Your task to perform on an android device: Open calendar and show me the first week of next month Image 0: 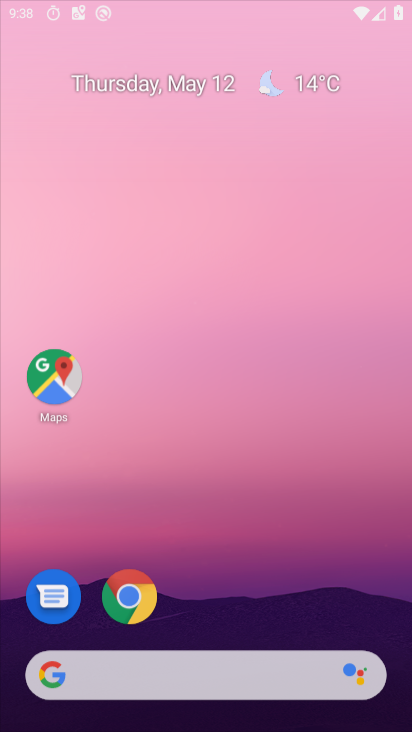
Step 0: press back button
Your task to perform on an android device: Open calendar and show me the first week of next month Image 1: 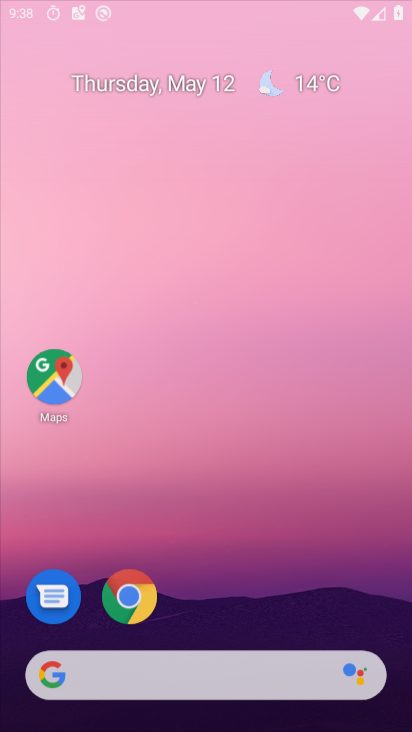
Step 1: click (146, 60)
Your task to perform on an android device: Open calendar and show me the first week of next month Image 2: 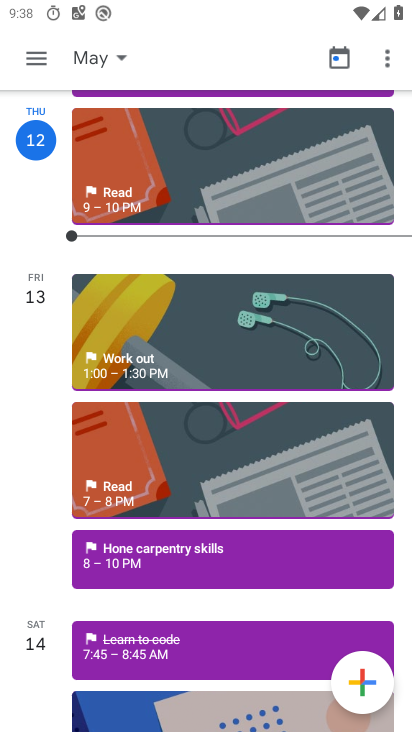
Step 2: click (380, 53)
Your task to perform on an android device: Open calendar and show me the first week of next month Image 3: 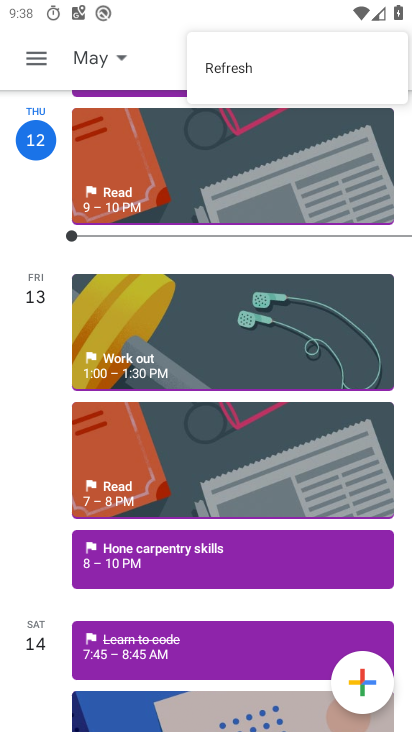
Step 3: drag from (295, 523) to (90, 11)
Your task to perform on an android device: Open calendar and show me the first week of next month Image 4: 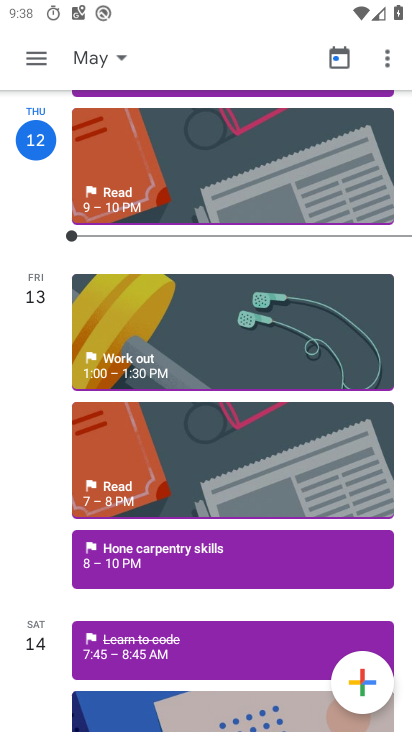
Step 4: drag from (225, 448) to (82, 78)
Your task to perform on an android device: Open calendar and show me the first week of next month Image 5: 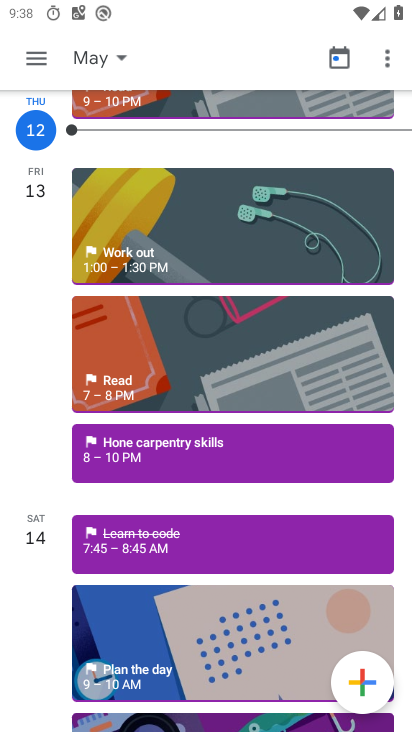
Step 5: drag from (215, 500) to (148, 111)
Your task to perform on an android device: Open calendar and show me the first week of next month Image 6: 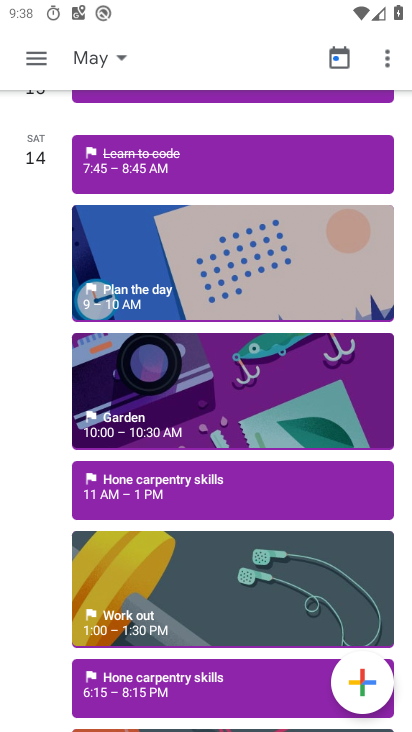
Step 6: drag from (270, 367) to (206, 62)
Your task to perform on an android device: Open calendar and show me the first week of next month Image 7: 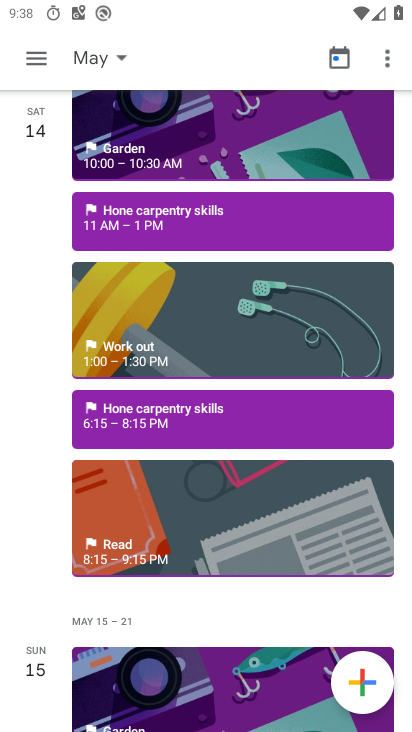
Step 7: drag from (230, 421) to (66, 41)
Your task to perform on an android device: Open calendar and show me the first week of next month Image 8: 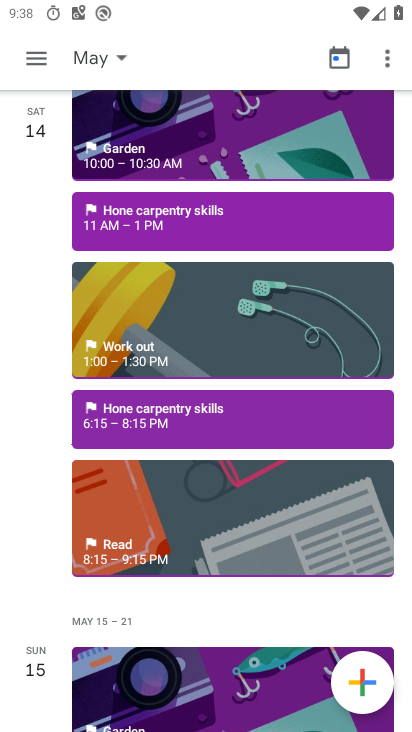
Step 8: drag from (200, 381) to (110, 24)
Your task to perform on an android device: Open calendar and show me the first week of next month Image 9: 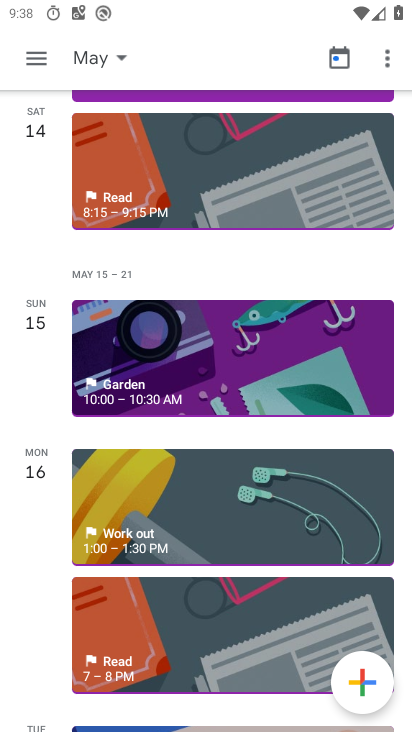
Step 9: drag from (254, 433) to (111, 16)
Your task to perform on an android device: Open calendar and show me the first week of next month Image 10: 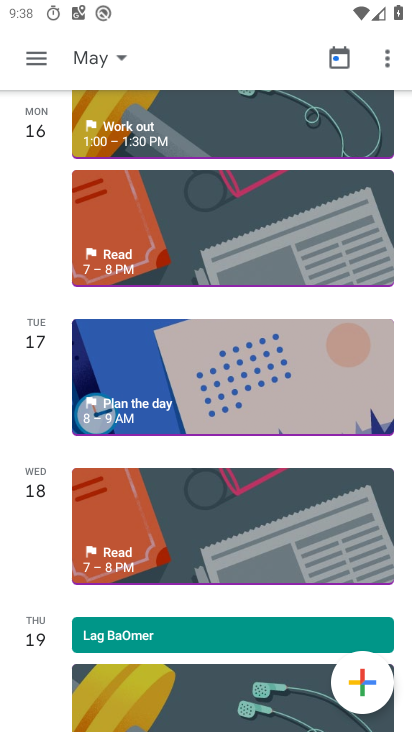
Step 10: drag from (192, 417) to (71, 16)
Your task to perform on an android device: Open calendar and show me the first week of next month Image 11: 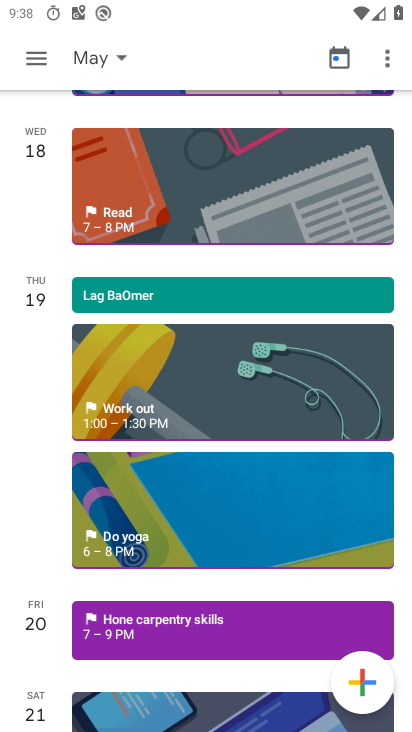
Step 11: drag from (222, 460) to (93, 89)
Your task to perform on an android device: Open calendar and show me the first week of next month Image 12: 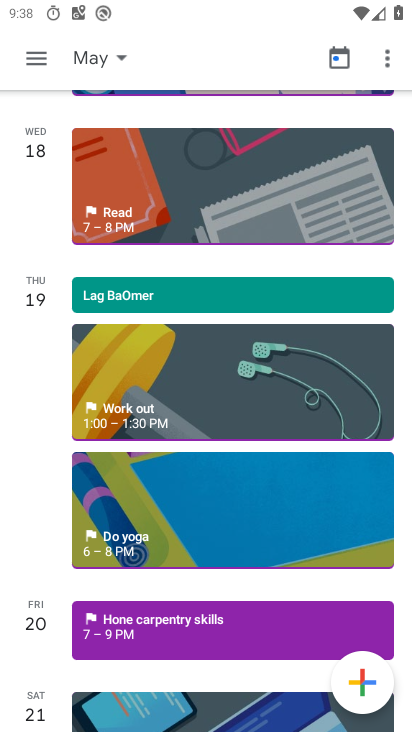
Step 12: drag from (153, 434) to (72, 147)
Your task to perform on an android device: Open calendar and show me the first week of next month Image 13: 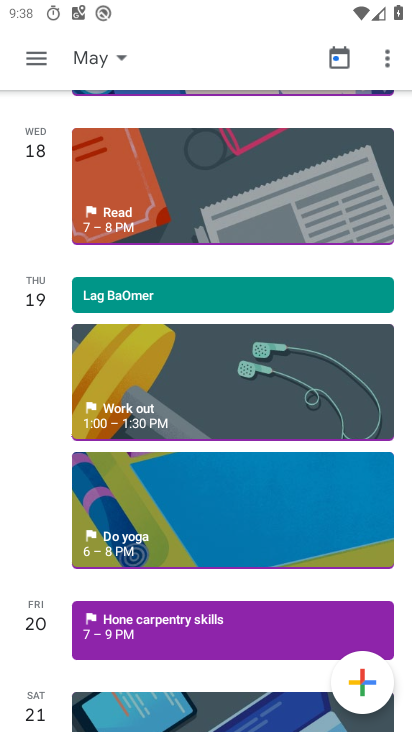
Step 13: drag from (213, 342) to (150, 125)
Your task to perform on an android device: Open calendar and show me the first week of next month Image 14: 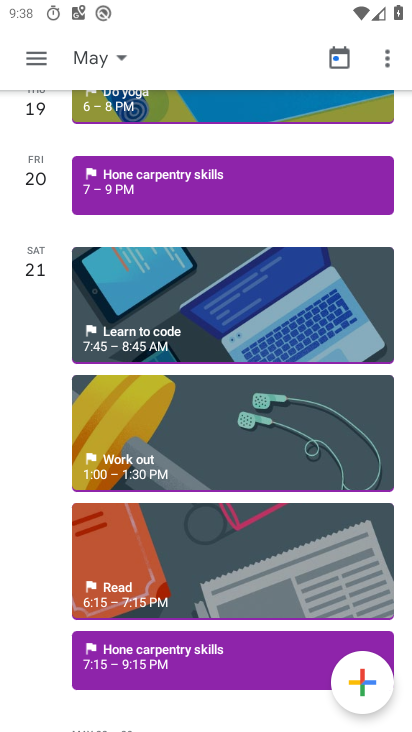
Step 14: drag from (191, 525) to (173, 220)
Your task to perform on an android device: Open calendar and show me the first week of next month Image 15: 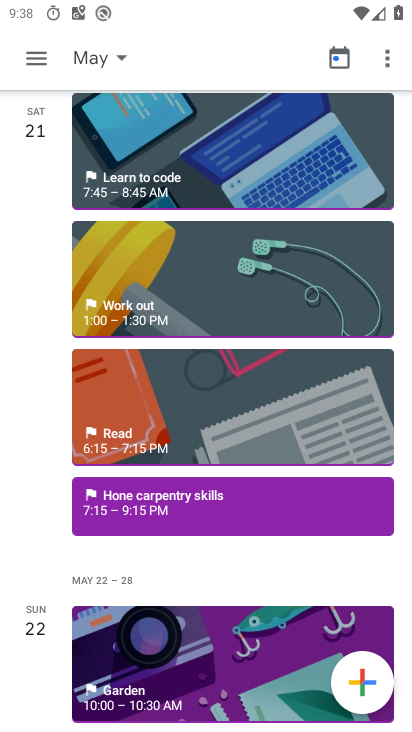
Step 15: drag from (159, 428) to (158, 155)
Your task to perform on an android device: Open calendar and show me the first week of next month Image 16: 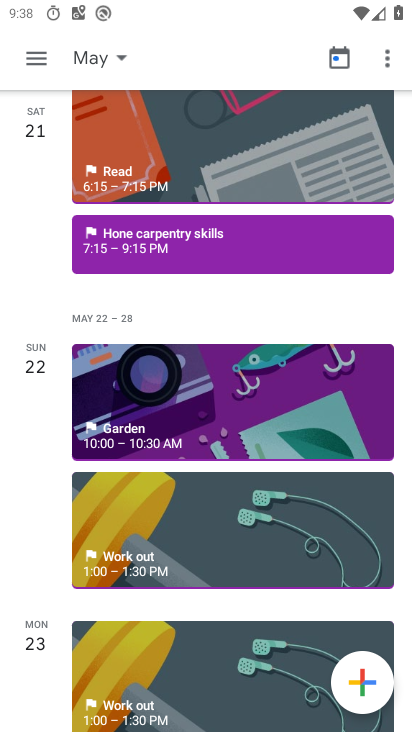
Step 16: drag from (244, 431) to (126, 143)
Your task to perform on an android device: Open calendar and show me the first week of next month Image 17: 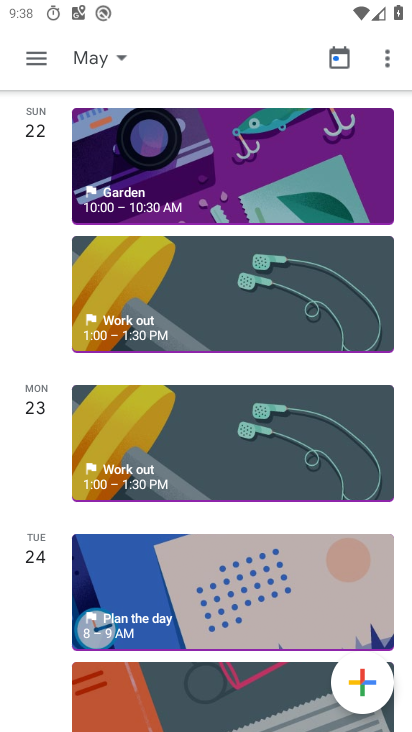
Step 17: drag from (206, 418) to (127, 212)
Your task to perform on an android device: Open calendar and show me the first week of next month Image 18: 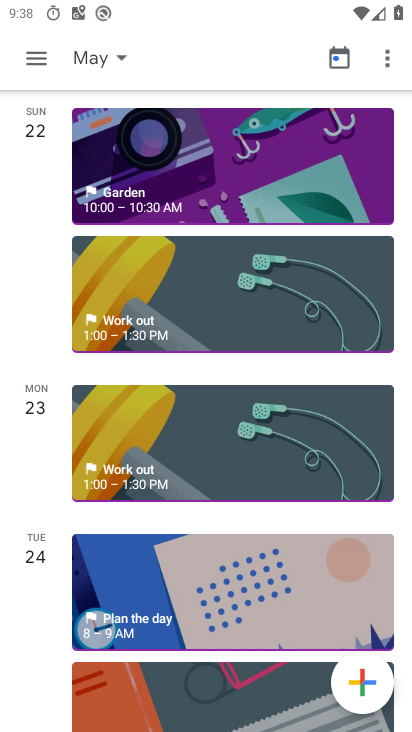
Step 18: drag from (165, 449) to (78, 81)
Your task to perform on an android device: Open calendar and show me the first week of next month Image 19: 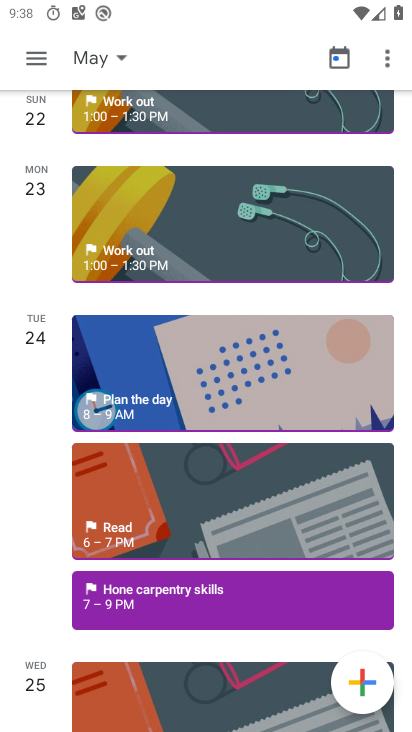
Step 19: drag from (226, 430) to (161, 168)
Your task to perform on an android device: Open calendar and show me the first week of next month Image 20: 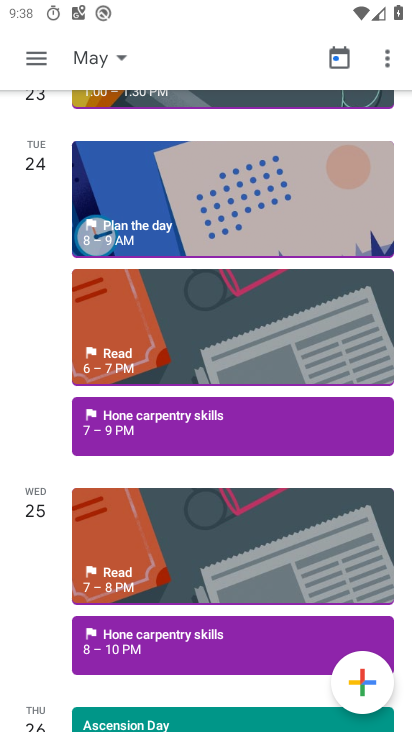
Step 20: drag from (206, 435) to (175, 151)
Your task to perform on an android device: Open calendar and show me the first week of next month Image 21: 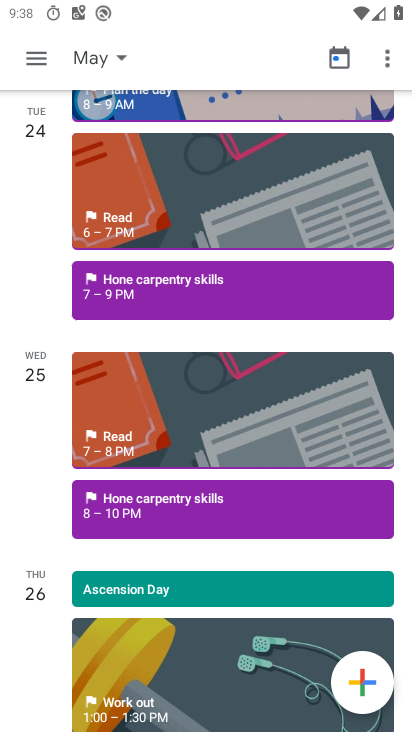
Step 21: drag from (188, 420) to (137, 77)
Your task to perform on an android device: Open calendar and show me the first week of next month Image 22: 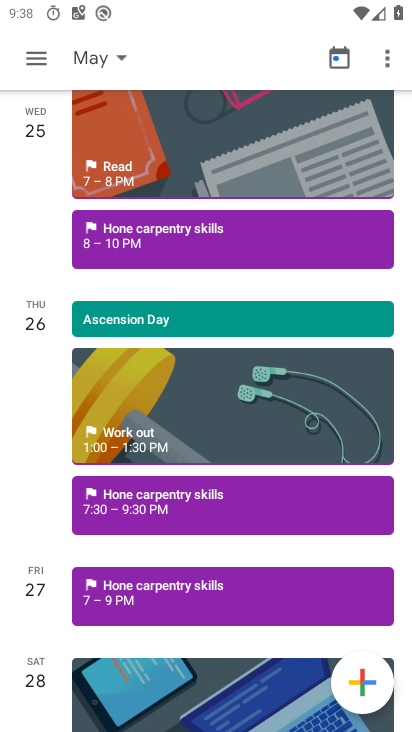
Step 22: drag from (210, 473) to (159, 193)
Your task to perform on an android device: Open calendar and show me the first week of next month Image 23: 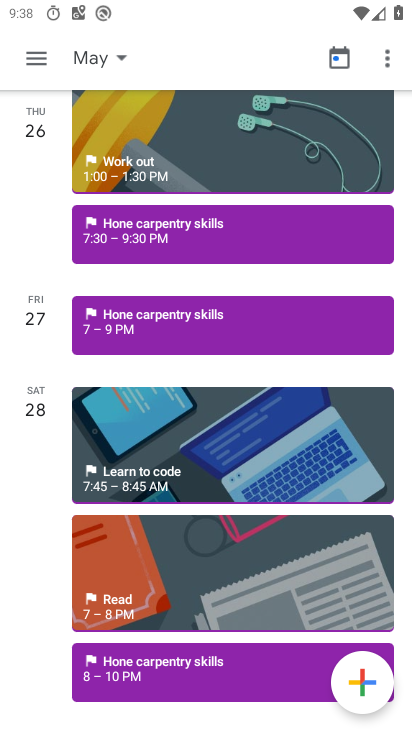
Step 23: drag from (158, 413) to (111, 21)
Your task to perform on an android device: Open calendar and show me the first week of next month Image 24: 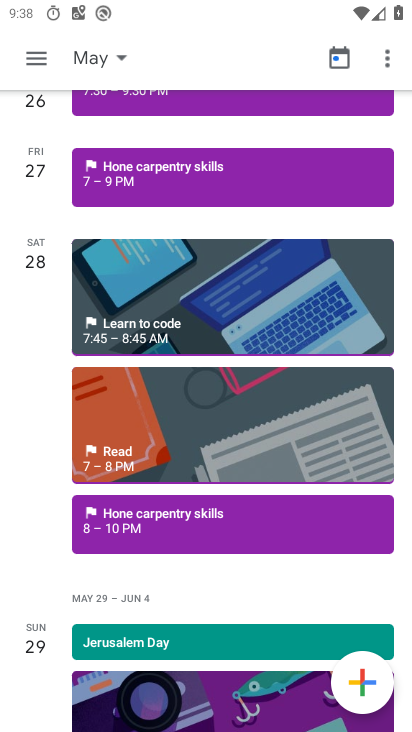
Step 24: drag from (185, 348) to (142, 24)
Your task to perform on an android device: Open calendar and show me the first week of next month Image 25: 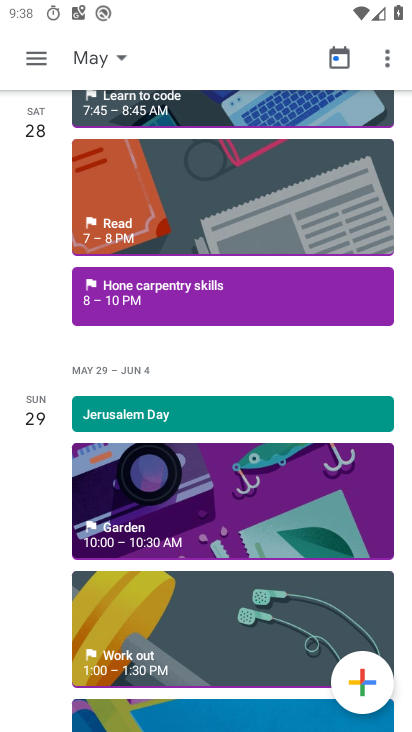
Step 25: drag from (174, 357) to (174, 78)
Your task to perform on an android device: Open calendar and show me the first week of next month Image 26: 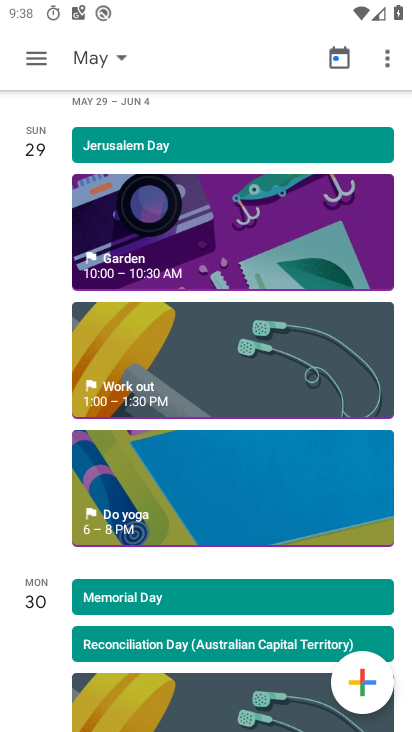
Step 26: drag from (165, 306) to (129, 64)
Your task to perform on an android device: Open calendar and show me the first week of next month Image 27: 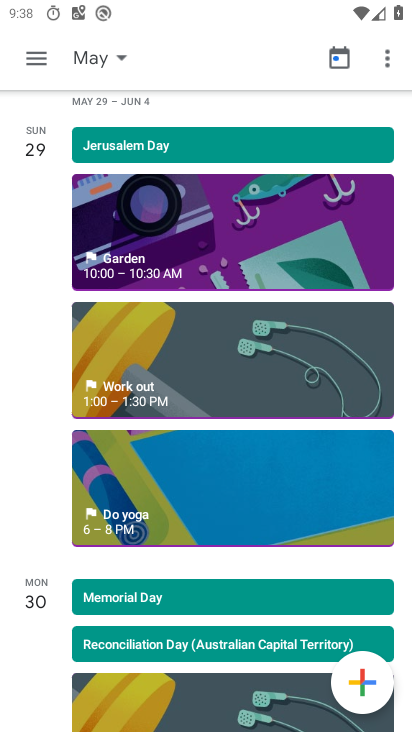
Step 27: drag from (144, 414) to (127, 78)
Your task to perform on an android device: Open calendar and show me the first week of next month Image 28: 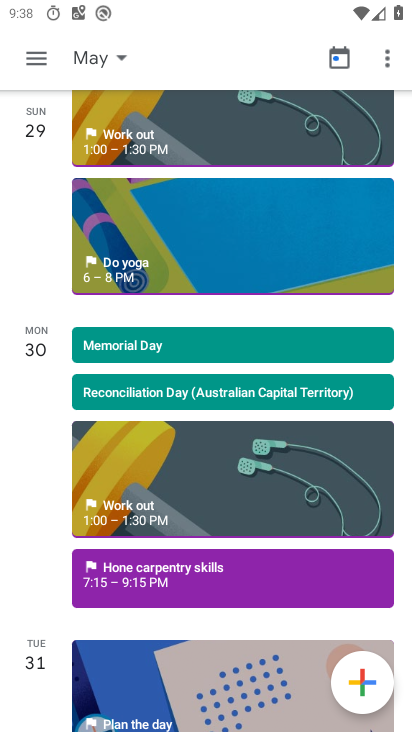
Step 28: drag from (168, 481) to (149, 31)
Your task to perform on an android device: Open calendar and show me the first week of next month Image 29: 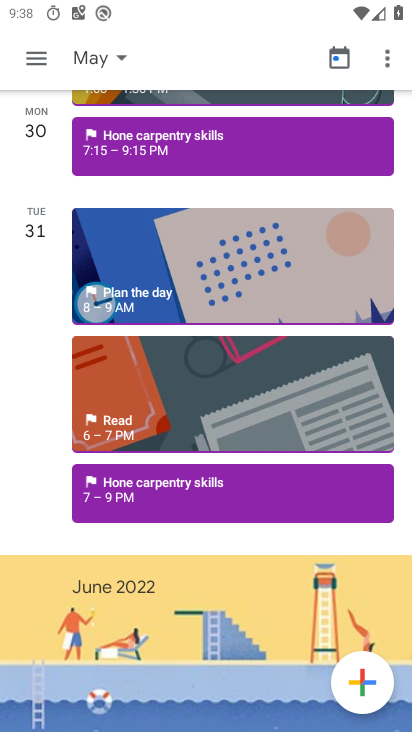
Step 29: drag from (147, 304) to (215, 498)
Your task to perform on an android device: Open calendar and show me the first week of next month Image 30: 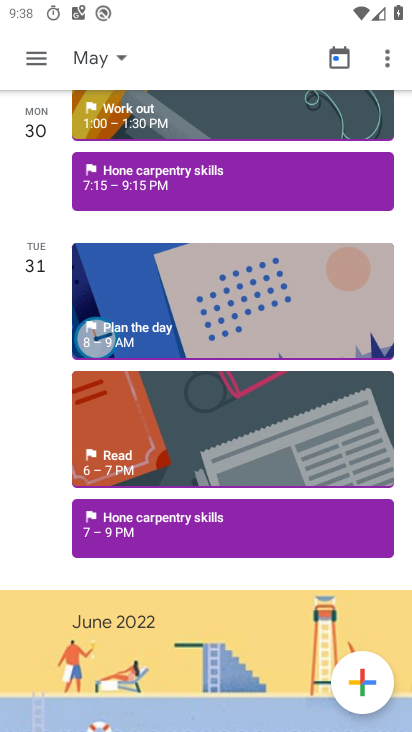
Step 30: click (129, 541)
Your task to perform on an android device: Open calendar and show me the first week of next month Image 31: 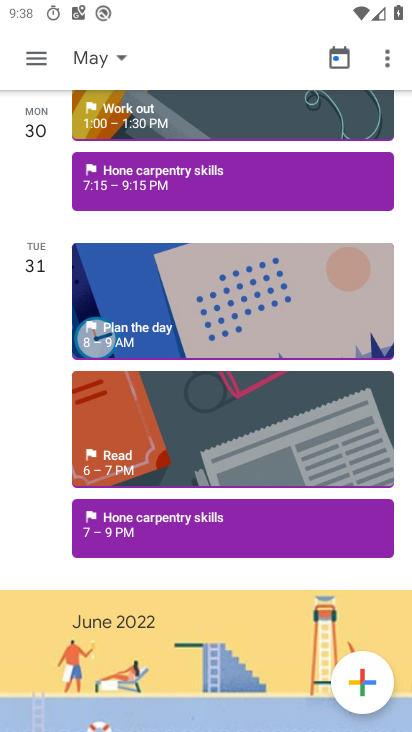
Step 31: drag from (74, 333) to (178, 679)
Your task to perform on an android device: Open calendar and show me the first week of next month Image 32: 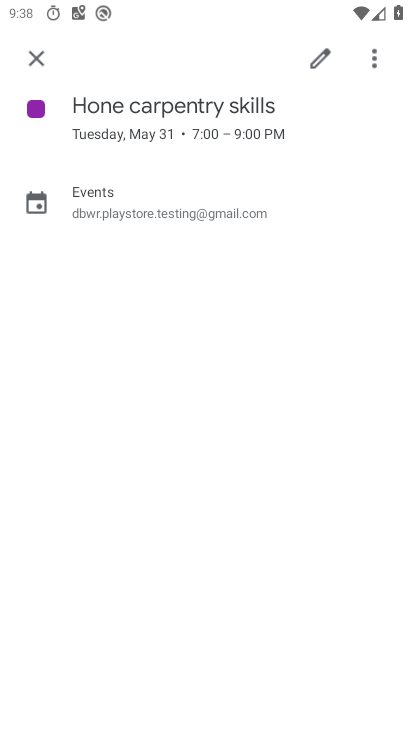
Step 32: click (31, 46)
Your task to perform on an android device: Open calendar and show me the first week of next month Image 33: 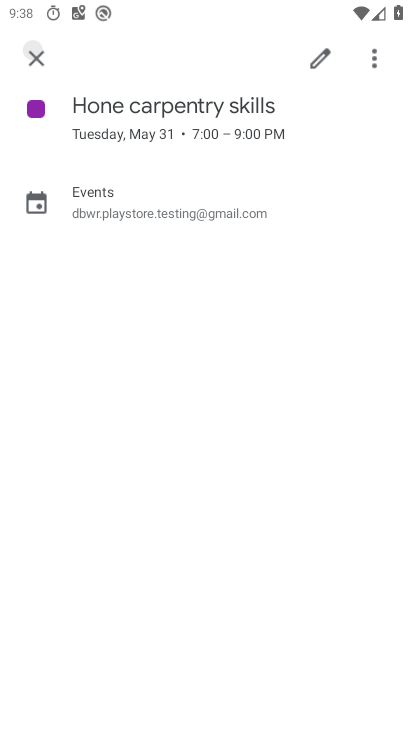
Step 33: click (31, 53)
Your task to perform on an android device: Open calendar and show me the first week of next month Image 34: 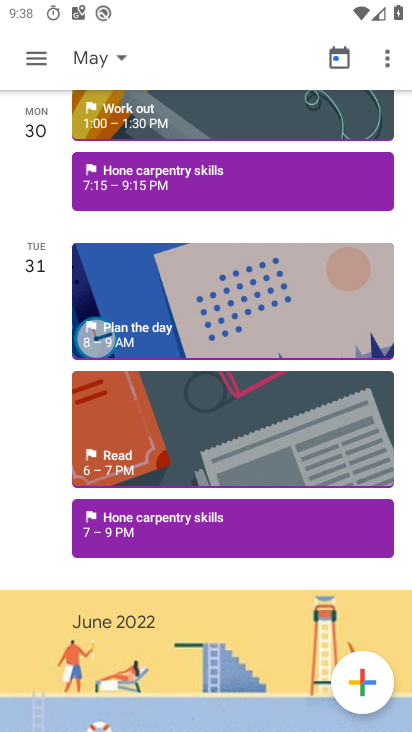
Step 34: click (213, 545)
Your task to perform on an android device: Open calendar and show me the first week of next month Image 35: 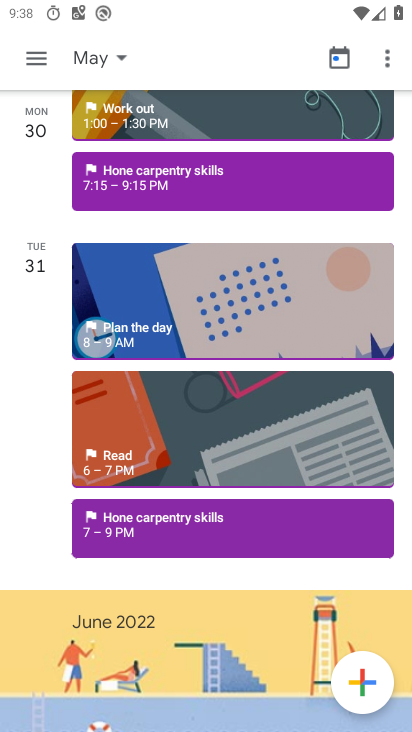
Step 35: drag from (152, 165) to (255, 499)
Your task to perform on an android device: Open calendar and show me the first week of next month Image 36: 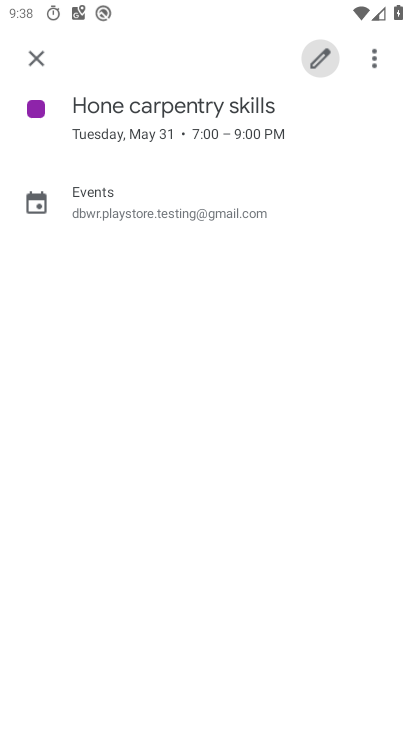
Step 36: drag from (179, 172) to (272, 520)
Your task to perform on an android device: Open calendar and show me the first week of next month Image 37: 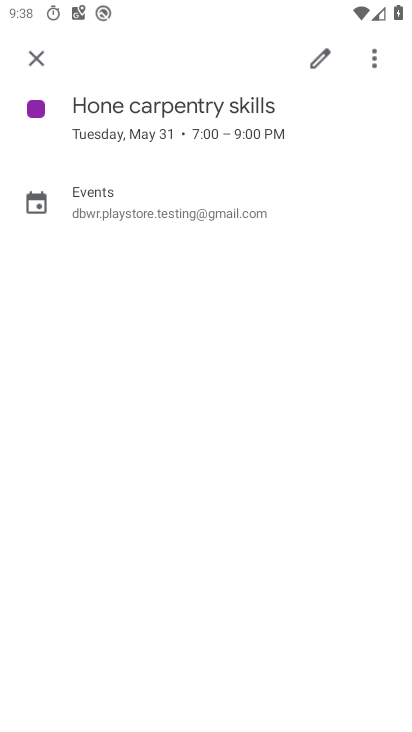
Step 37: click (30, 59)
Your task to perform on an android device: Open calendar and show me the first week of next month Image 38: 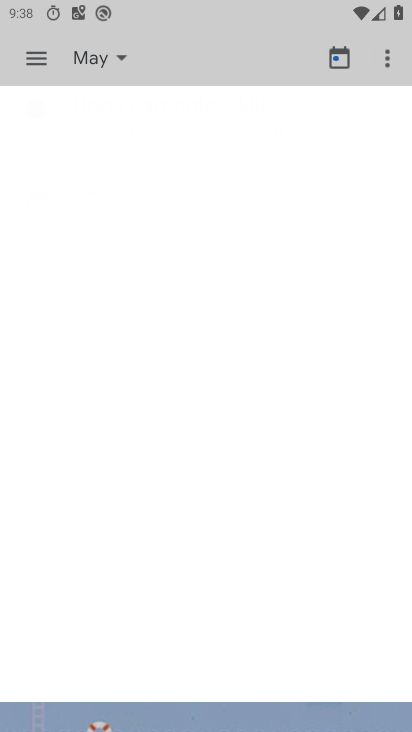
Step 38: click (37, 56)
Your task to perform on an android device: Open calendar and show me the first week of next month Image 39: 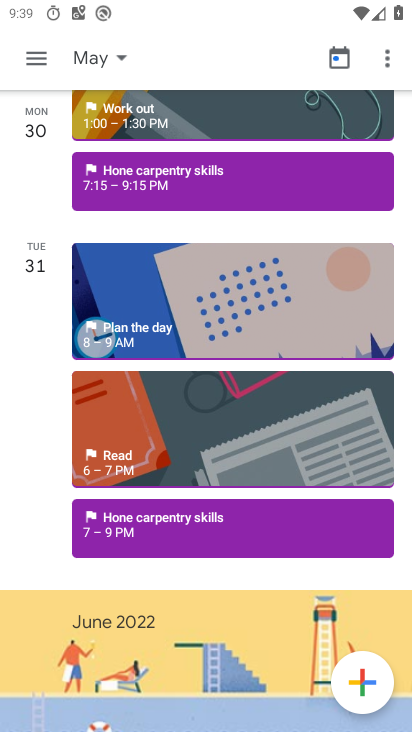
Step 39: click (232, 539)
Your task to perform on an android device: Open calendar and show me the first week of next month Image 40: 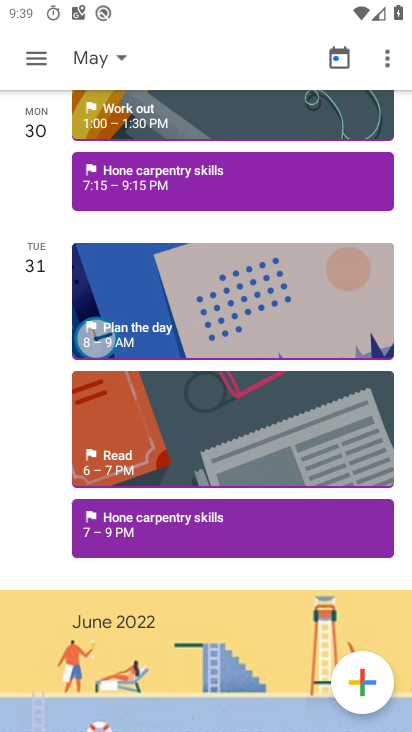
Step 40: drag from (163, 353) to (210, 468)
Your task to perform on an android device: Open calendar and show me the first week of next month Image 41: 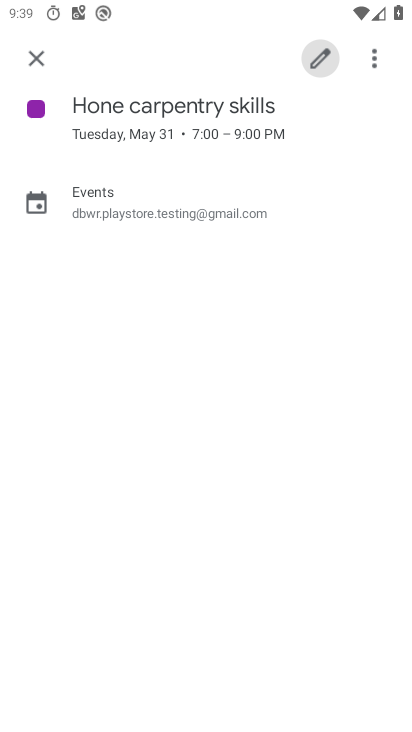
Step 41: drag from (163, 202) to (205, 456)
Your task to perform on an android device: Open calendar and show me the first week of next month Image 42: 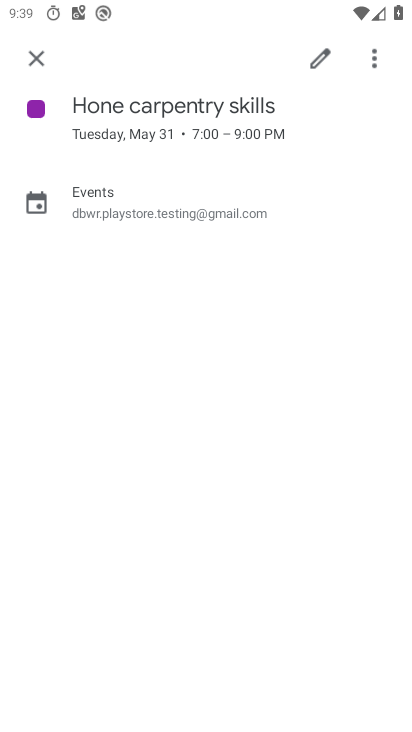
Step 42: click (36, 61)
Your task to perform on an android device: Open calendar and show me the first week of next month Image 43: 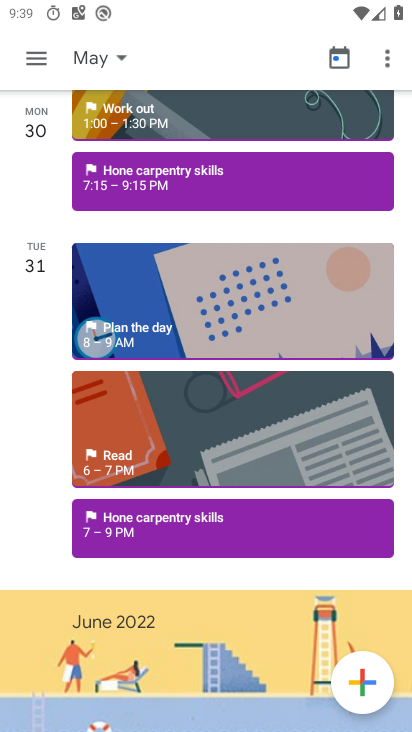
Step 43: drag from (211, 437) to (136, 143)
Your task to perform on an android device: Open calendar and show me the first week of next month Image 44: 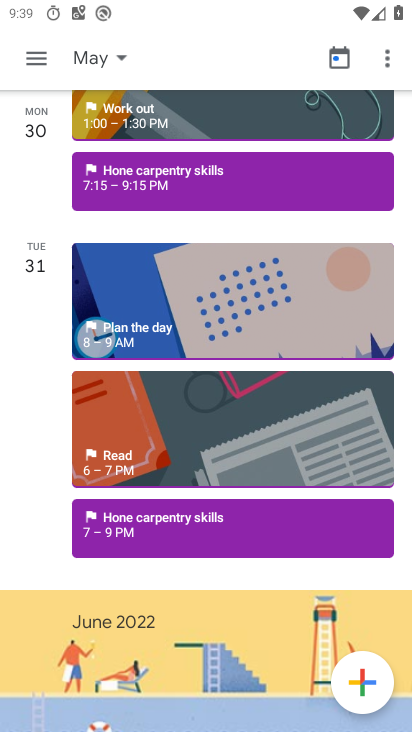
Step 44: click (203, 438)
Your task to perform on an android device: Open calendar and show me the first week of next month Image 45: 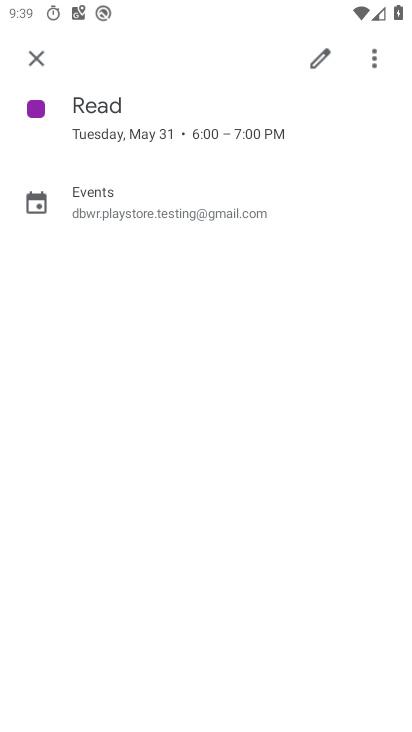
Step 45: drag from (187, 373) to (208, 490)
Your task to perform on an android device: Open calendar and show me the first week of next month Image 46: 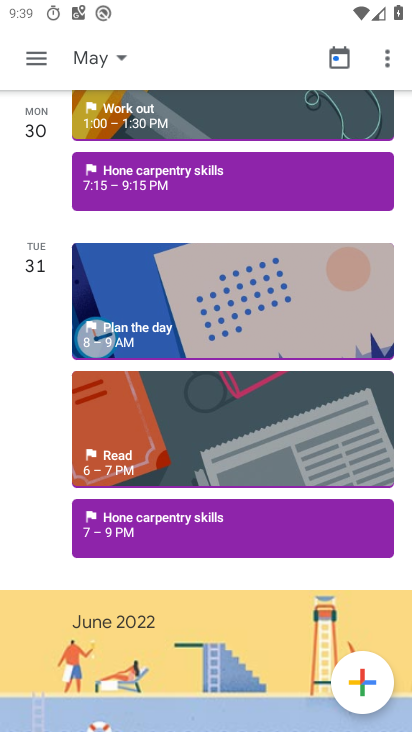
Step 46: drag from (172, 372) to (194, 454)
Your task to perform on an android device: Open calendar and show me the first week of next month Image 47: 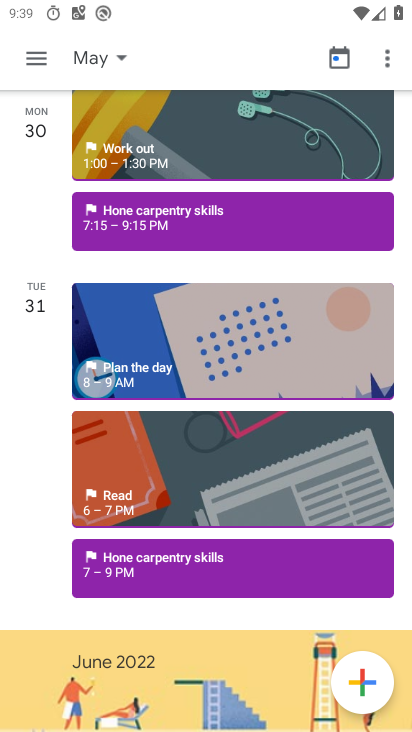
Step 47: click (197, 486)
Your task to perform on an android device: Open calendar and show me the first week of next month Image 48: 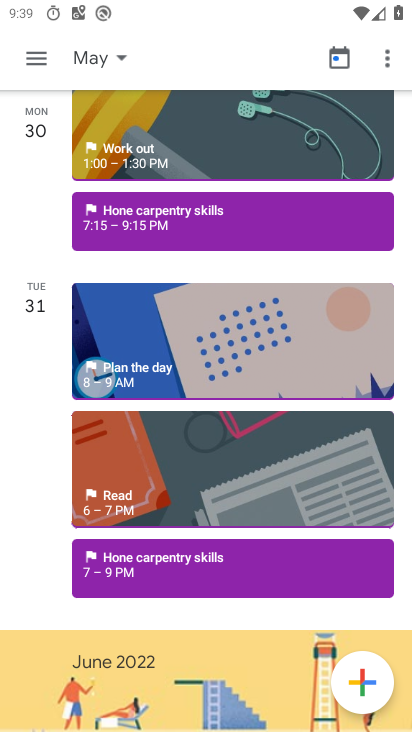
Step 48: click (41, 51)
Your task to perform on an android device: Open calendar and show me the first week of next month Image 49: 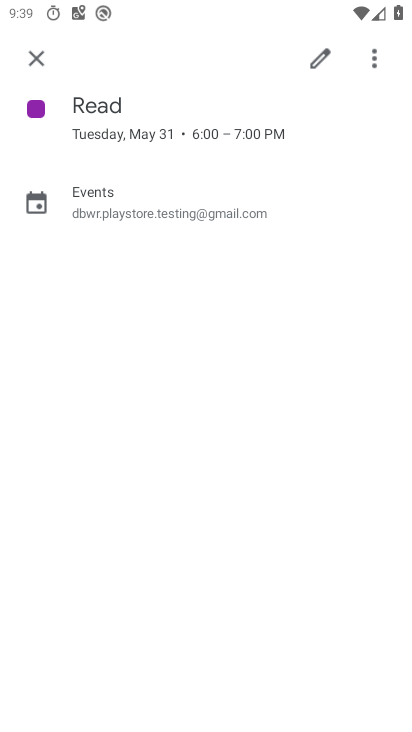
Step 49: click (33, 59)
Your task to perform on an android device: Open calendar and show me the first week of next month Image 50: 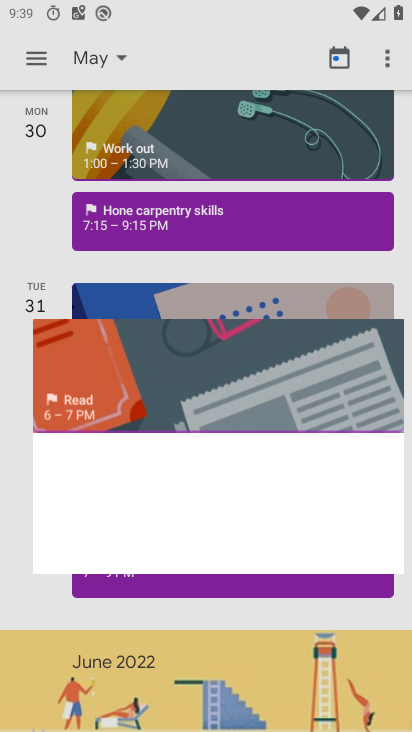
Step 50: click (24, 36)
Your task to perform on an android device: Open calendar and show me the first week of next month Image 51: 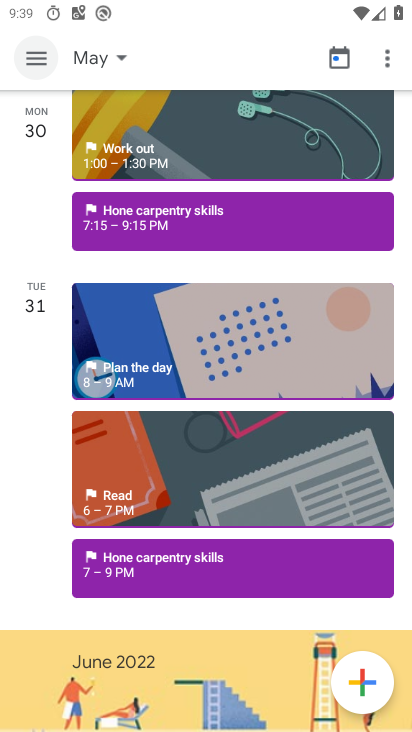
Step 51: click (25, 35)
Your task to perform on an android device: Open calendar and show me the first week of next month Image 52: 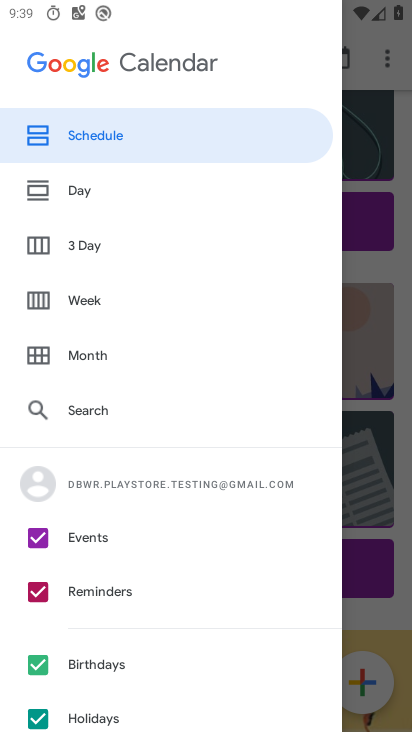
Step 52: click (349, 351)
Your task to perform on an android device: Open calendar and show me the first week of next month Image 53: 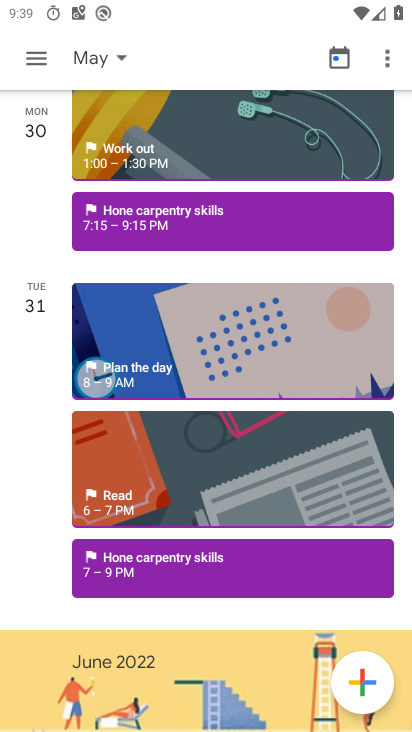
Step 53: click (349, 351)
Your task to perform on an android device: Open calendar and show me the first week of next month Image 54: 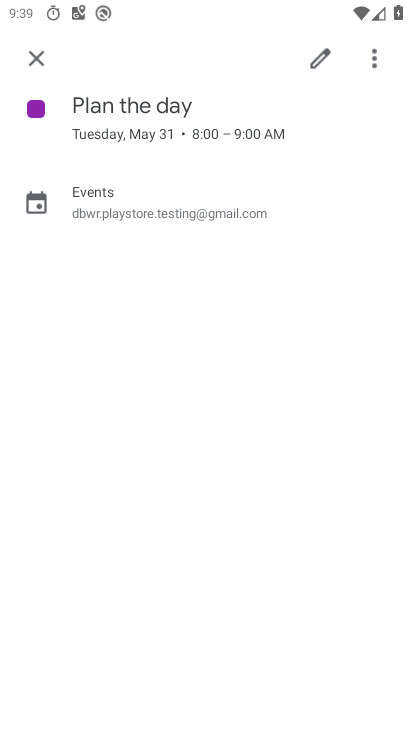
Step 54: click (359, 337)
Your task to perform on an android device: Open calendar and show me the first week of next month Image 55: 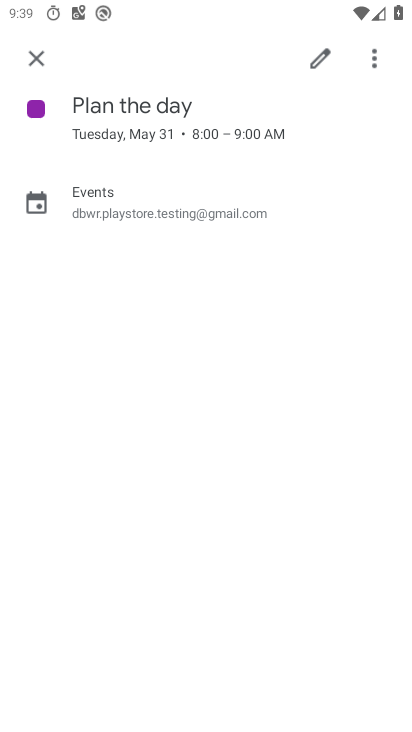
Step 55: click (359, 336)
Your task to perform on an android device: Open calendar and show me the first week of next month Image 56: 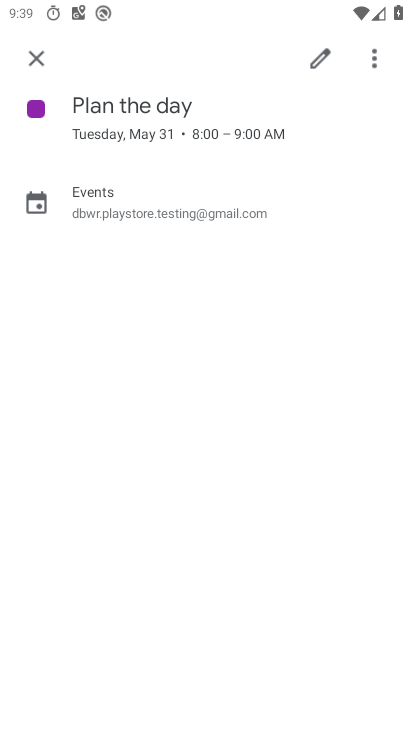
Step 56: click (28, 53)
Your task to perform on an android device: Open calendar and show me the first week of next month Image 57: 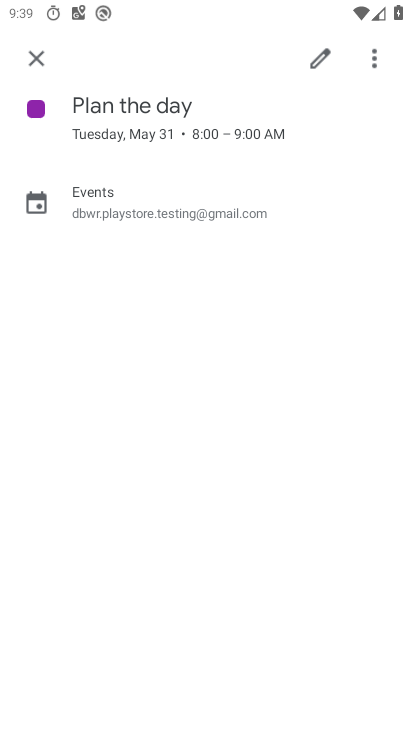
Step 57: click (41, 50)
Your task to perform on an android device: Open calendar and show me the first week of next month Image 58: 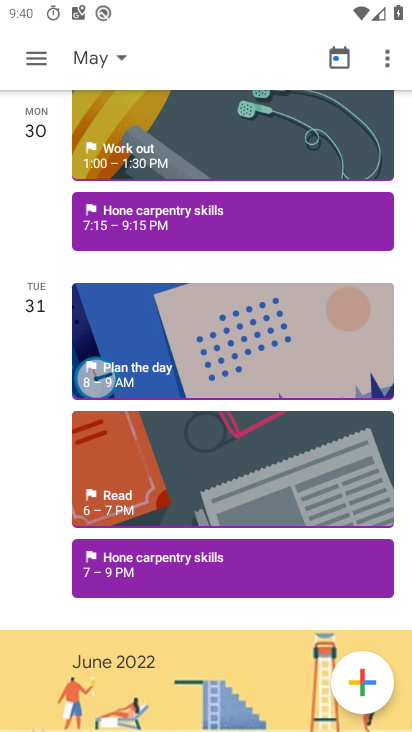
Step 58: click (37, 59)
Your task to perform on an android device: Open calendar and show me the first week of next month Image 59: 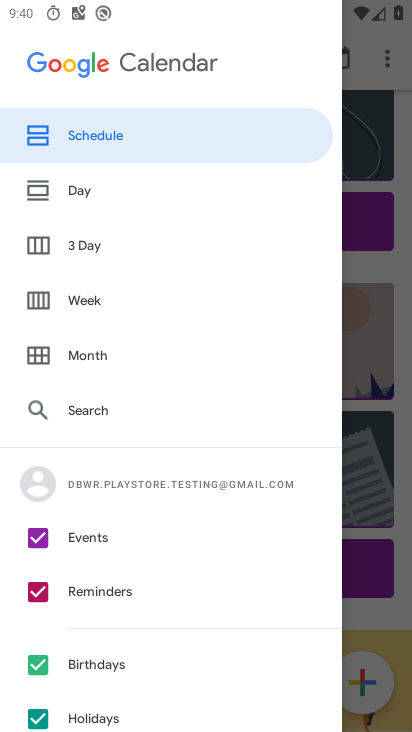
Step 59: click (35, 52)
Your task to perform on an android device: Open calendar and show me the first week of next month Image 60: 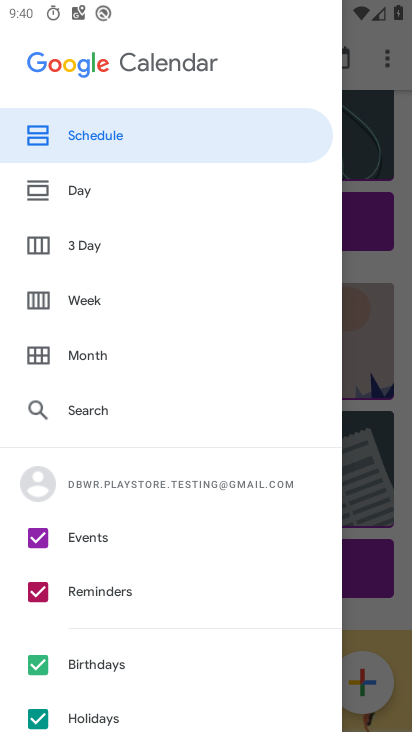
Step 60: click (38, 69)
Your task to perform on an android device: Open calendar and show me the first week of next month Image 61: 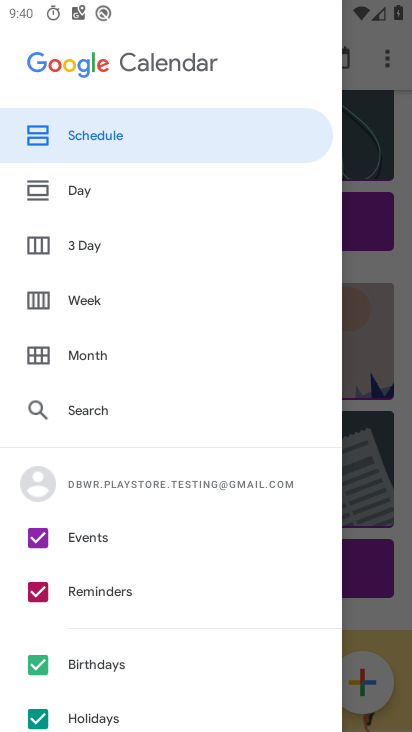
Step 61: click (379, 191)
Your task to perform on an android device: Open calendar and show me the first week of next month Image 62: 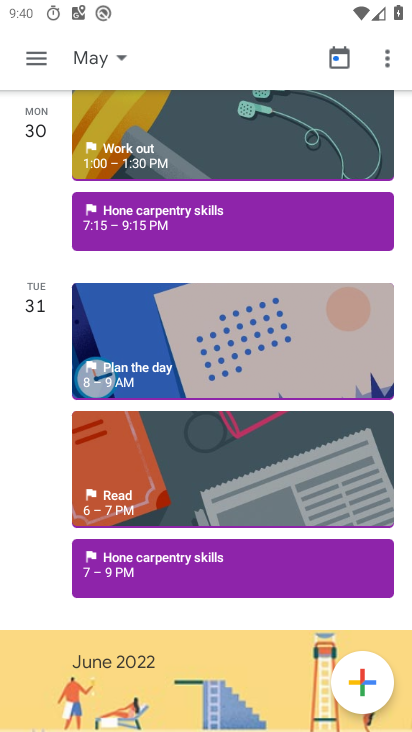
Step 62: drag from (378, 190) to (361, 161)
Your task to perform on an android device: Open calendar and show me the first week of next month Image 63: 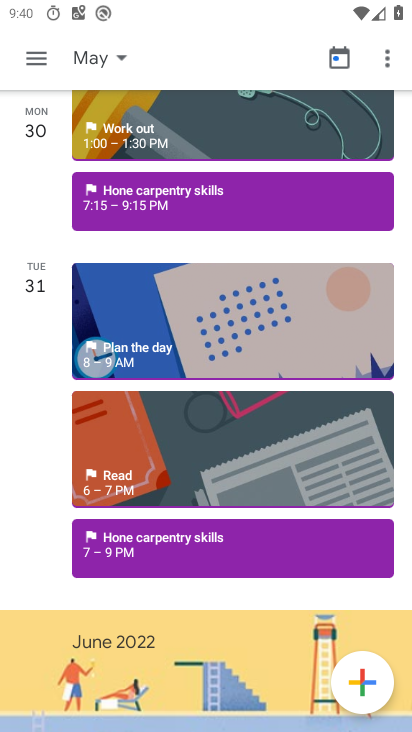
Step 63: click (382, 405)
Your task to perform on an android device: Open calendar and show me the first week of next month Image 64: 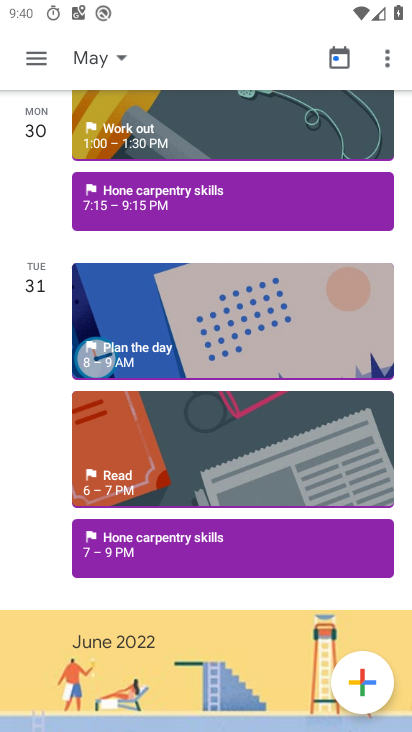
Step 64: click (376, 445)
Your task to perform on an android device: Open calendar and show me the first week of next month Image 65: 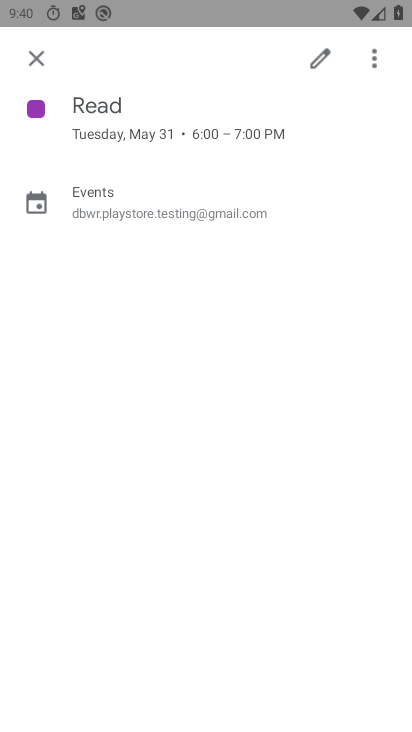
Step 65: click (380, 448)
Your task to perform on an android device: Open calendar and show me the first week of next month Image 66: 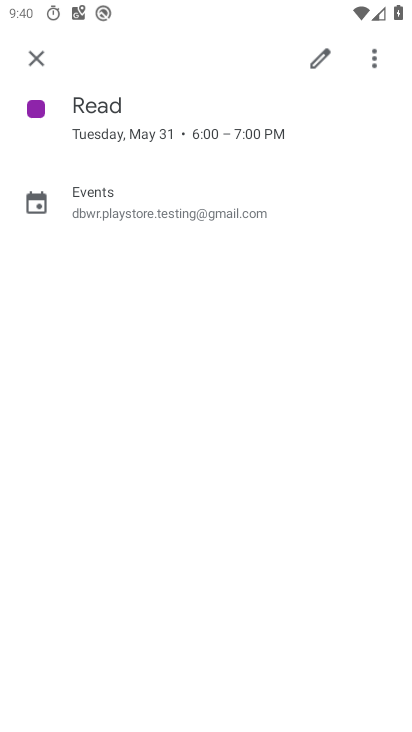
Step 66: click (356, 301)
Your task to perform on an android device: Open calendar and show me the first week of next month Image 67: 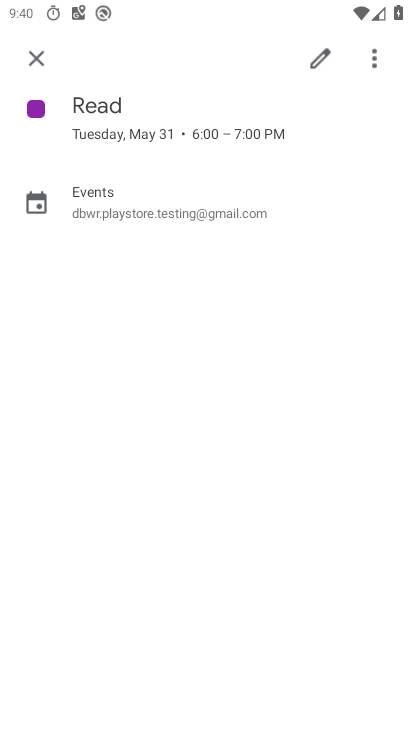
Step 67: click (351, 175)
Your task to perform on an android device: Open calendar and show me the first week of next month Image 68: 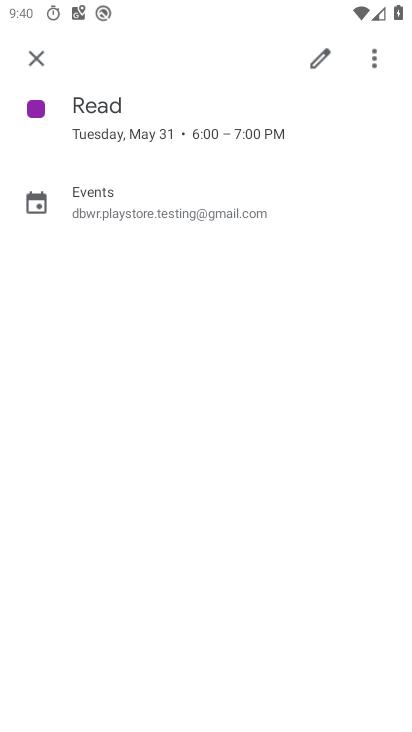
Step 68: task complete